Your task to perform on an android device: set an alarm Image 0: 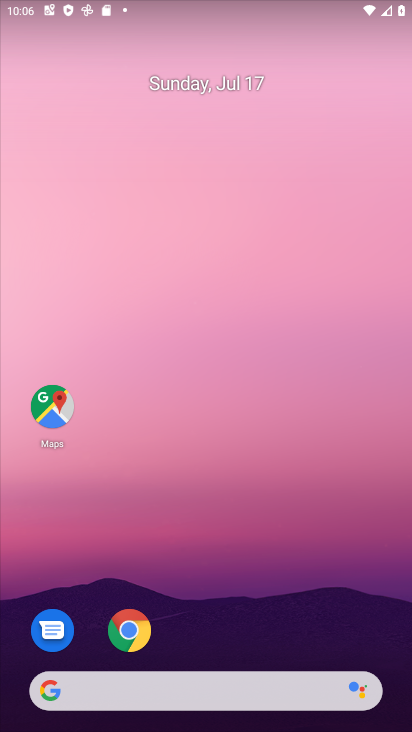
Step 0: drag from (218, 651) to (229, 0)
Your task to perform on an android device: set an alarm Image 1: 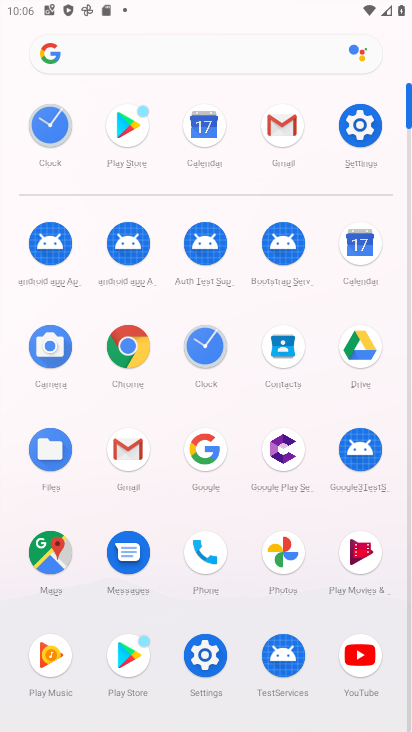
Step 1: click (200, 150)
Your task to perform on an android device: set an alarm Image 2: 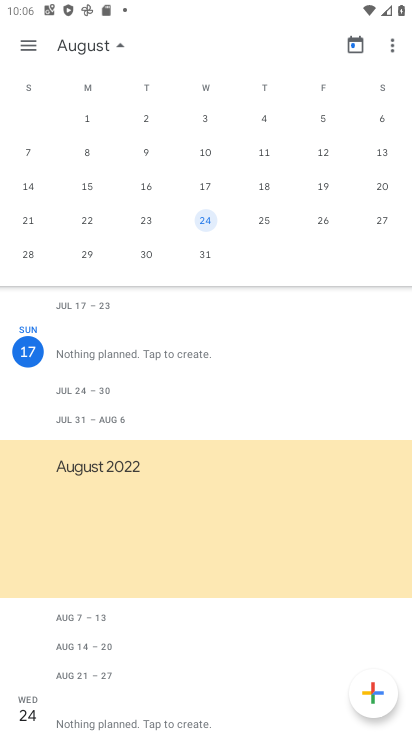
Step 2: press home button
Your task to perform on an android device: set an alarm Image 3: 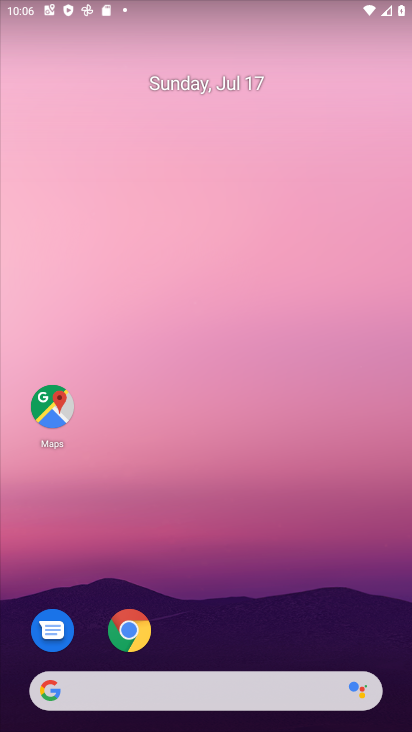
Step 3: drag from (220, 651) to (263, 11)
Your task to perform on an android device: set an alarm Image 4: 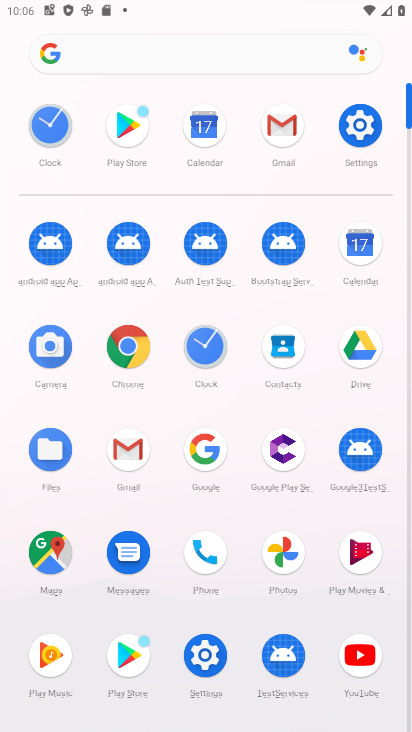
Step 4: click (193, 365)
Your task to perform on an android device: set an alarm Image 5: 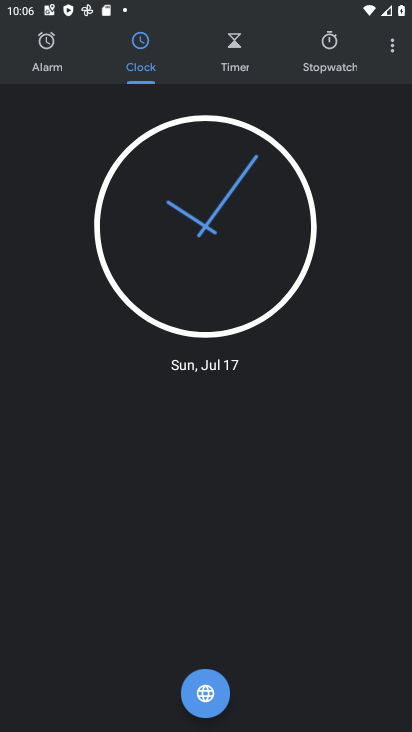
Step 5: task complete